Your task to perform on an android device: Play the last video I watched on Youtube Image 0: 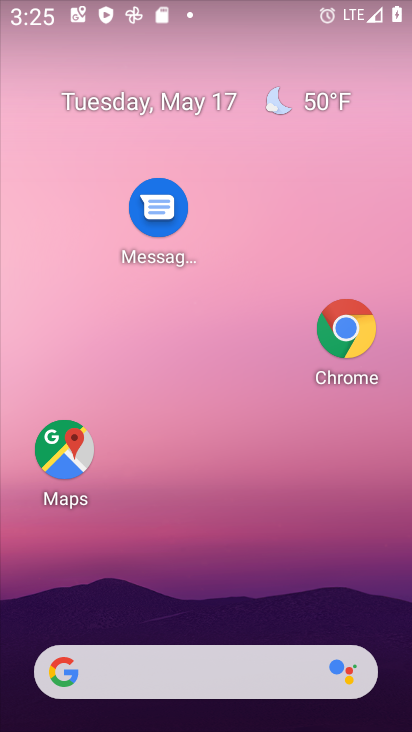
Step 0: drag from (227, 624) to (284, 120)
Your task to perform on an android device: Play the last video I watched on Youtube Image 1: 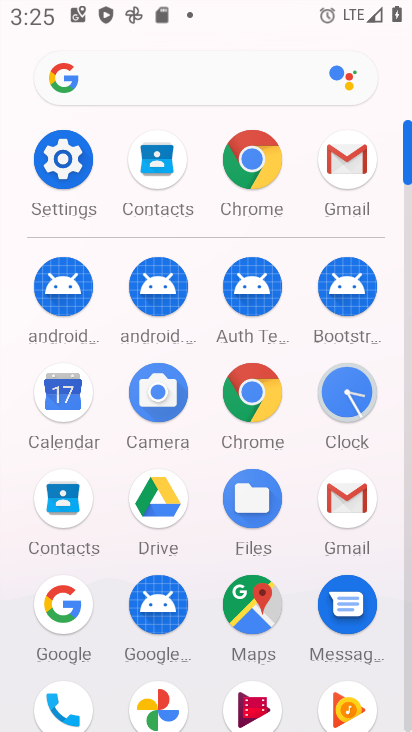
Step 1: click (405, 727)
Your task to perform on an android device: Play the last video I watched on Youtube Image 2: 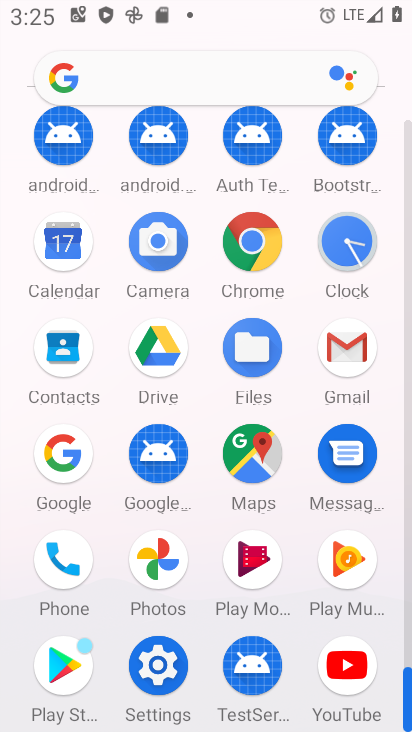
Step 2: click (370, 700)
Your task to perform on an android device: Play the last video I watched on Youtube Image 3: 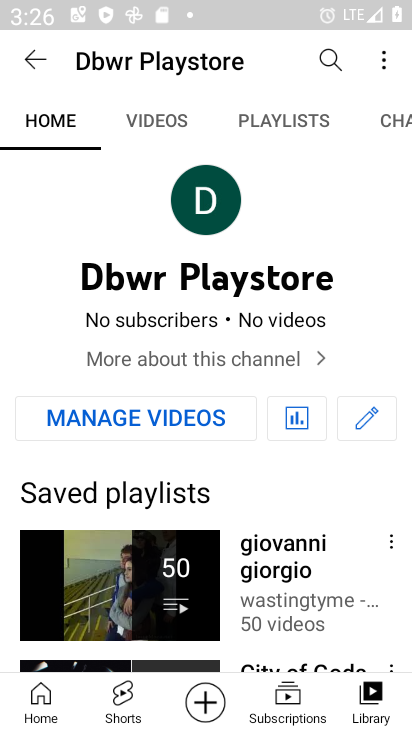
Step 3: click (379, 688)
Your task to perform on an android device: Play the last video I watched on Youtube Image 4: 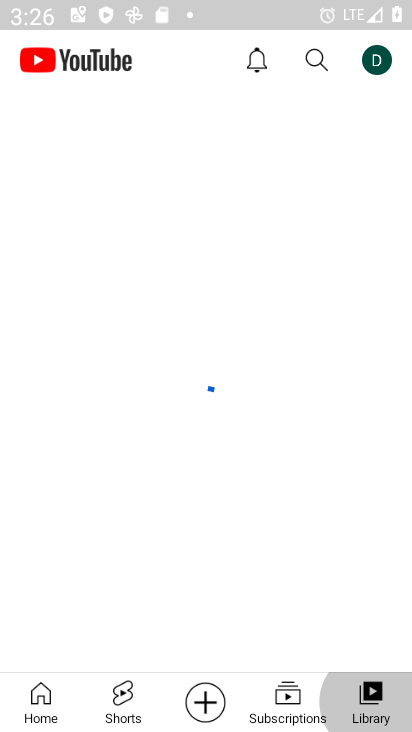
Step 4: click (379, 688)
Your task to perform on an android device: Play the last video I watched on Youtube Image 5: 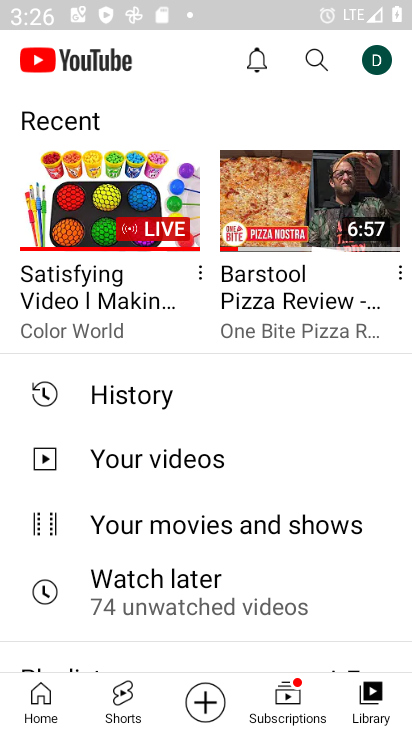
Step 5: task complete